Your task to perform on an android device: Show me popular videos on Youtube Image 0: 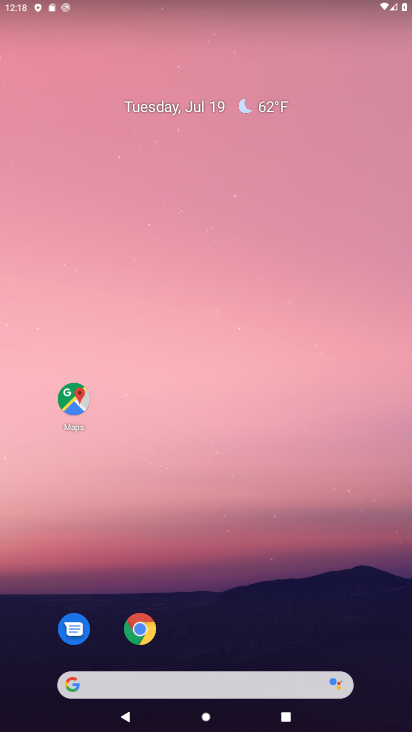
Step 0: drag from (232, 656) to (203, 60)
Your task to perform on an android device: Show me popular videos on Youtube Image 1: 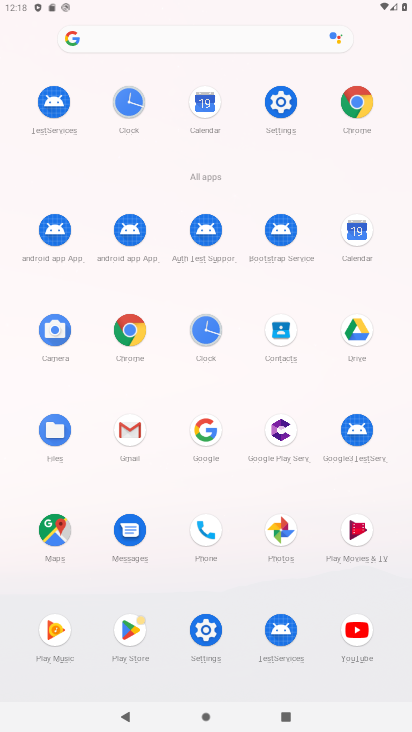
Step 1: click (362, 633)
Your task to perform on an android device: Show me popular videos on Youtube Image 2: 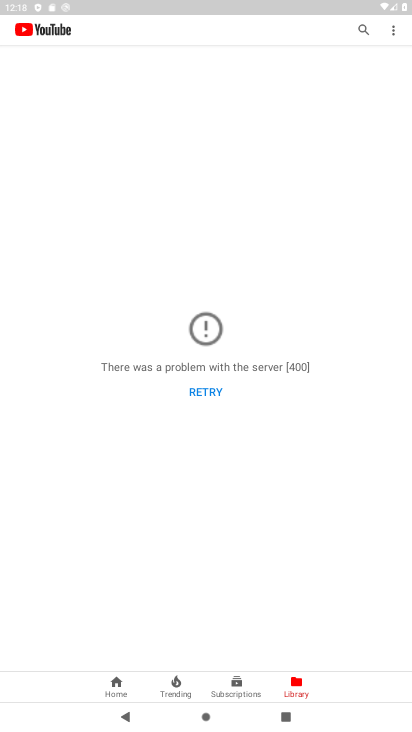
Step 2: click (178, 684)
Your task to perform on an android device: Show me popular videos on Youtube Image 3: 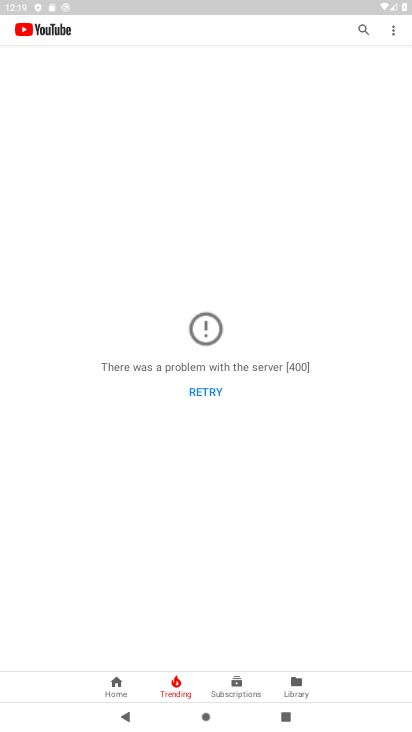
Step 3: task complete